Your task to perform on an android device: Go to Maps Image 0: 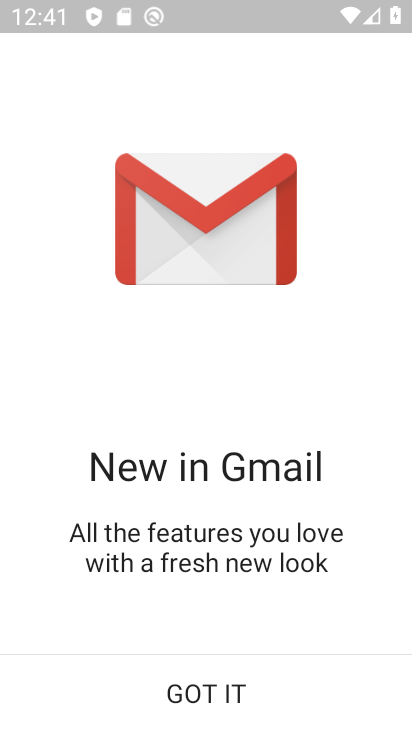
Step 0: press home button
Your task to perform on an android device: Go to Maps Image 1: 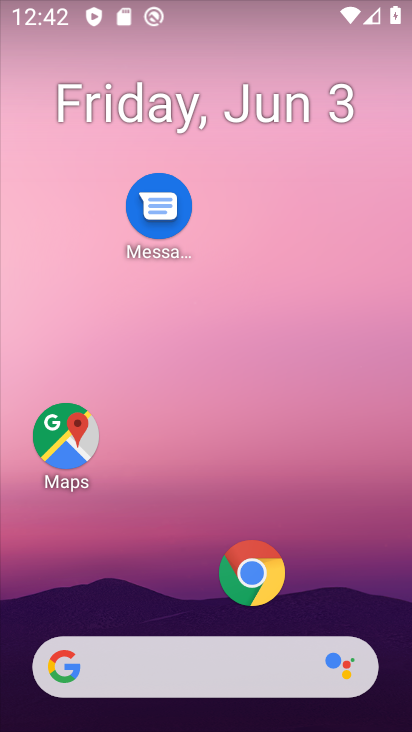
Step 1: click (68, 425)
Your task to perform on an android device: Go to Maps Image 2: 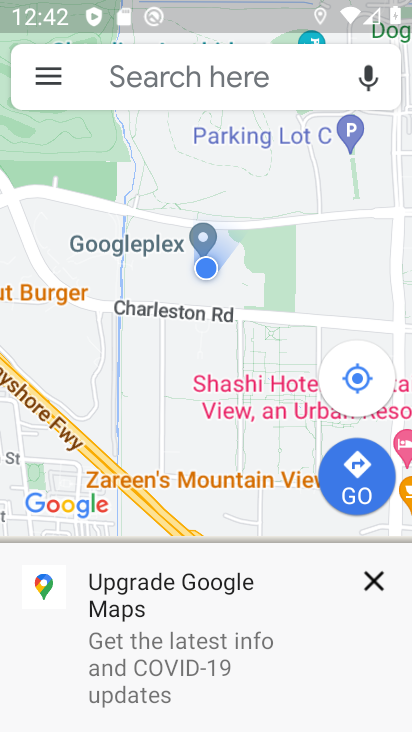
Step 2: click (374, 582)
Your task to perform on an android device: Go to Maps Image 3: 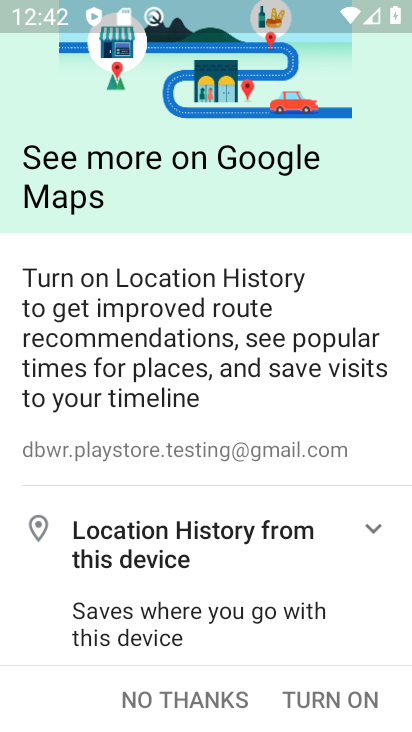
Step 3: click (211, 708)
Your task to perform on an android device: Go to Maps Image 4: 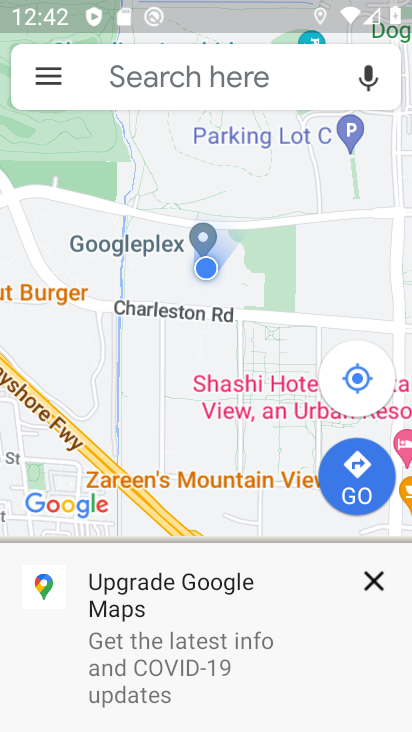
Step 4: task complete